Your task to perform on an android device: set default search engine in the chrome app Image 0: 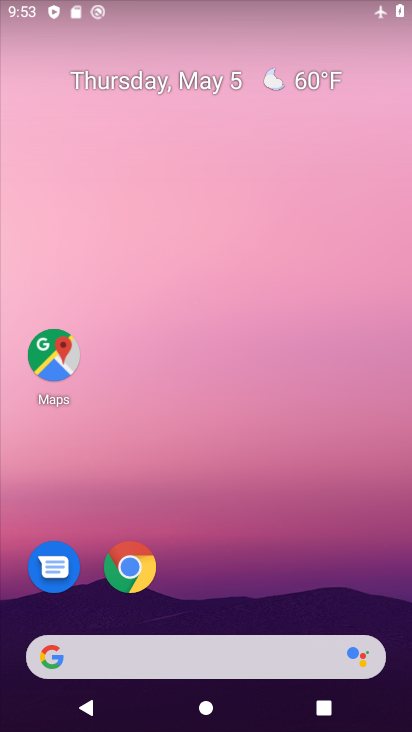
Step 0: click (155, 565)
Your task to perform on an android device: set default search engine in the chrome app Image 1: 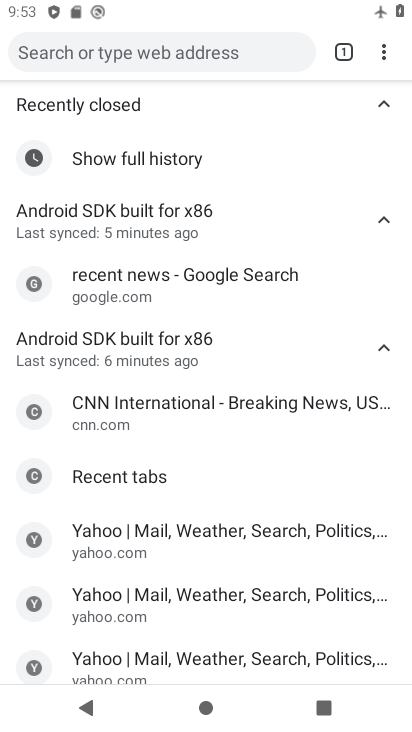
Step 1: click (379, 55)
Your task to perform on an android device: set default search engine in the chrome app Image 2: 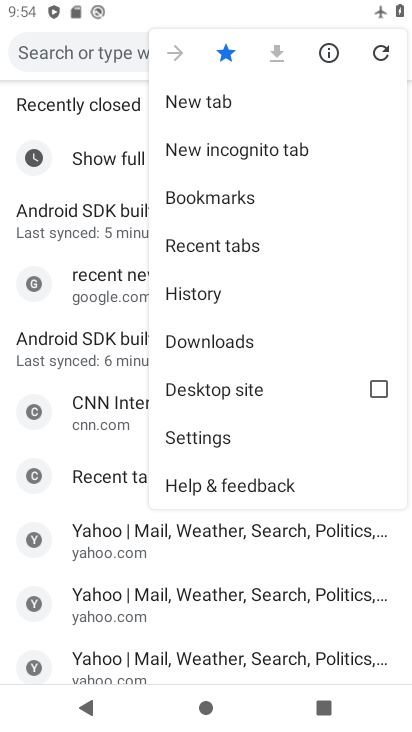
Step 2: click (210, 431)
Your task to perform on an android device: set default search engine in the chrome app Image 3: 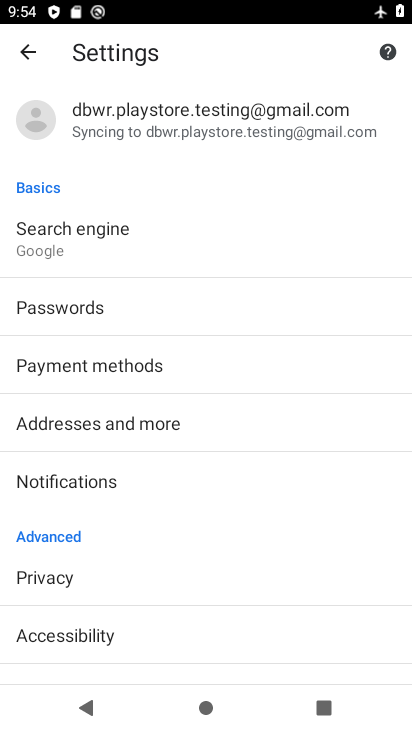
Step 3: click (104, 230)
Your task to perform on an android device: set default search engine in the chrome app Image 4: 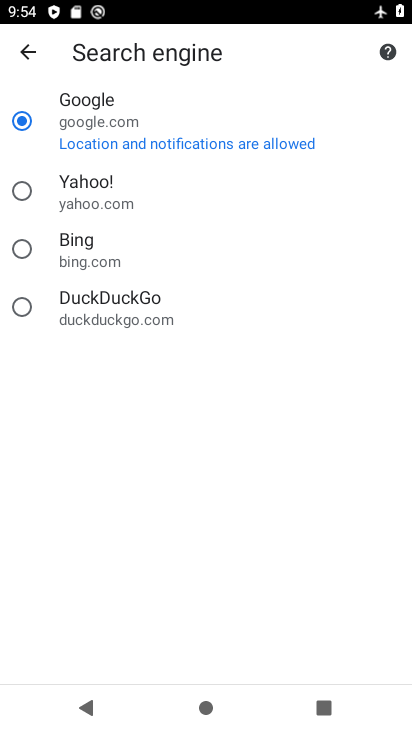
Step 4: click (38, 191)
Your task to perform on an android device: set default search engine in the chrome app Image 5: 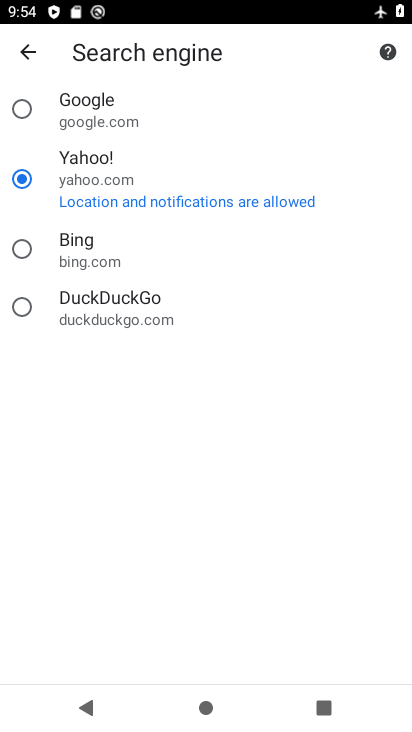
Step 5: task complete